Your task to perform on an android device: Open ESPN.com Image 0: 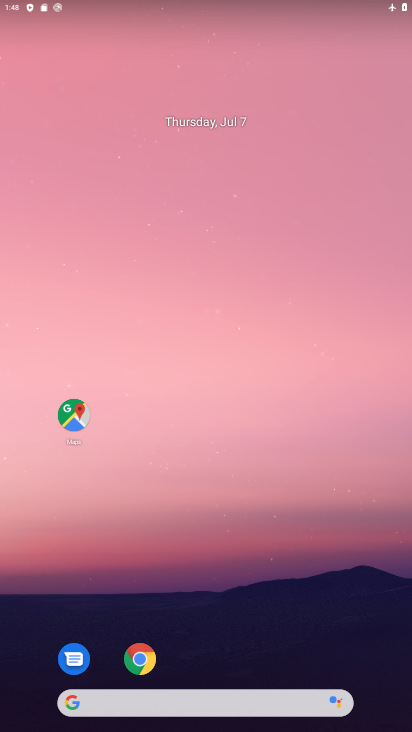
Step 0: click (402, 452)
Your task to perform on an android device: Open ESPN.com Image 1: 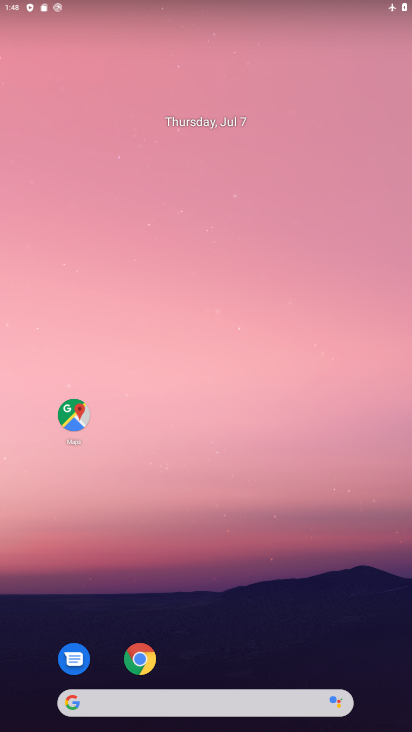
Step 1: drag from (193, 344) to (223, 160)
Your task to perform on an android device: Open ESPN.com Image 2: 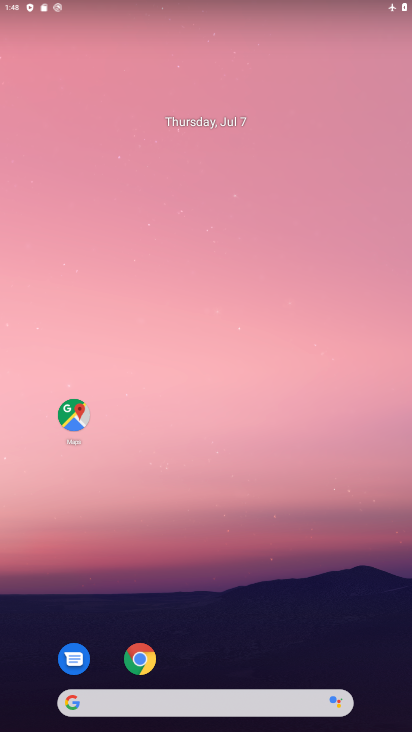
Step 2: drag from (291, 666) to (337, 179)
Your task to perform on an android device: Open ESPN.com Image 3: 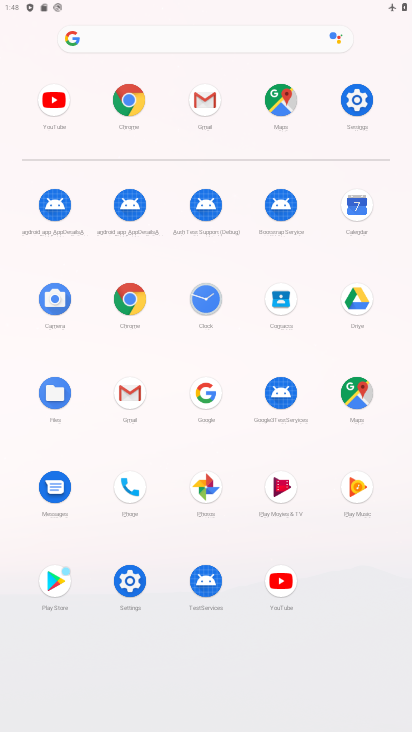
Step 3: click (139, 115)
Your task to perform on an android device: Open ESPN.com Image 4: 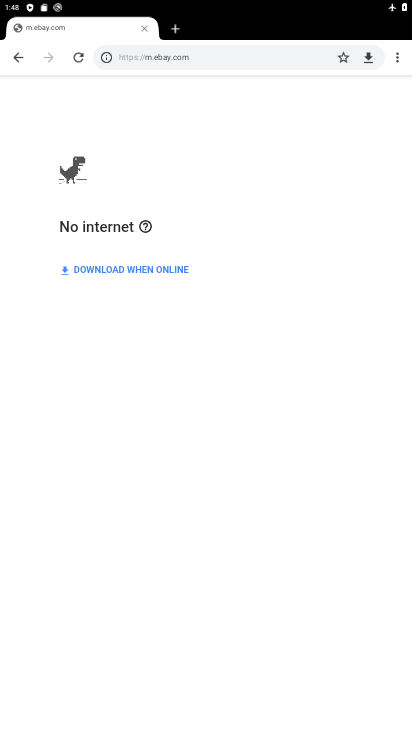
Step 4: click (221, 61)
Your task to perform on an android device: Open ESPN.com Image 5: 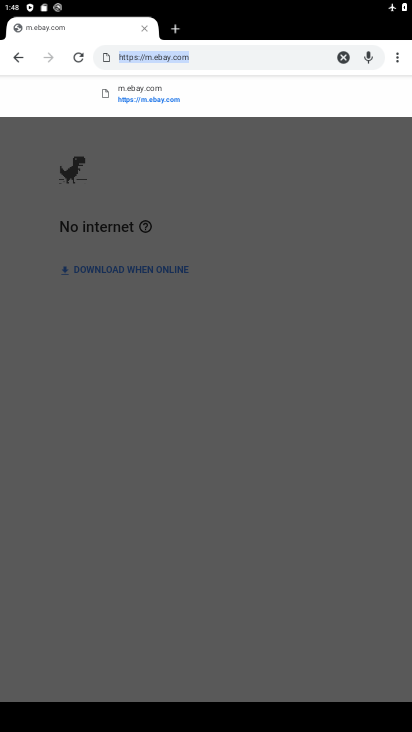
Step 5: type "espn.com"
Your task to perform on an android device: Open ESPN.com Image 6: 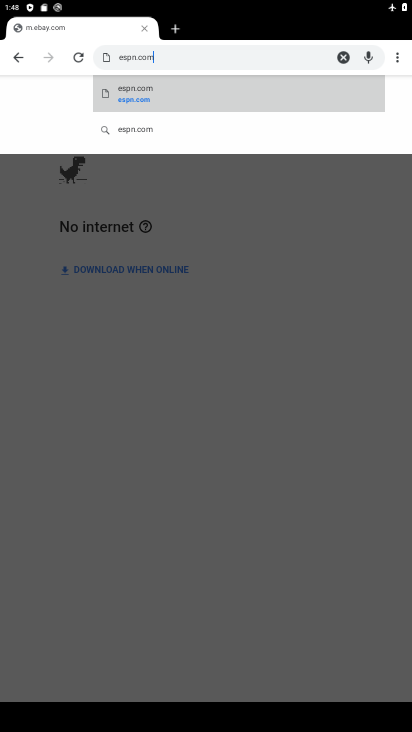
Step 6: click (258, 98)
Your task to perform on an android device: Open ESPN.com Image 7: 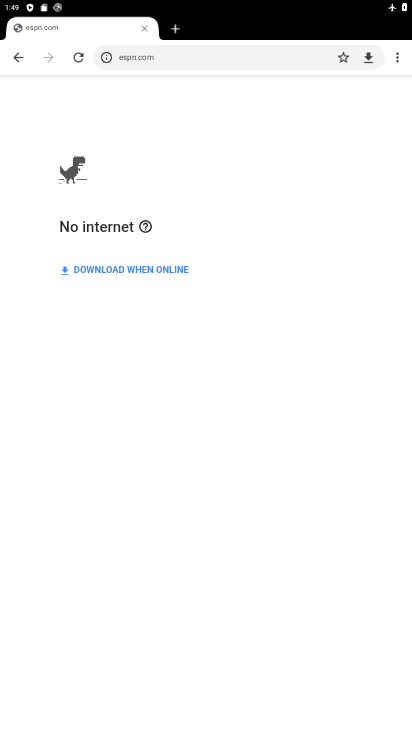
Step 7: task complete